Your task to perform on an android device: Open Google Maps and go to "Timeline" Image 0: 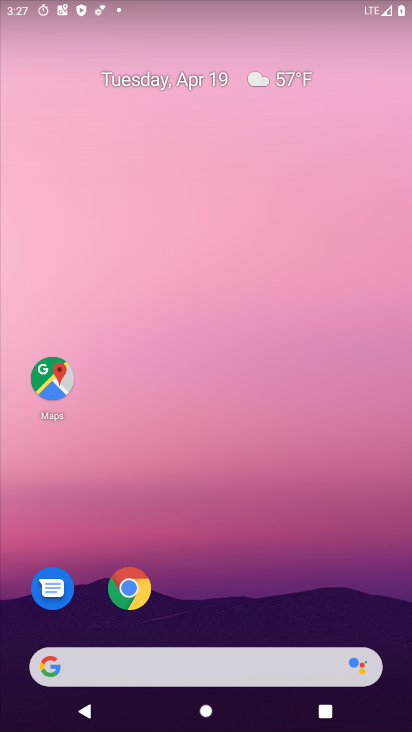
Step 0: click (342, 170)
Your task to perform on an android device: Open Google Maps and go to "Timeline" Image 1: 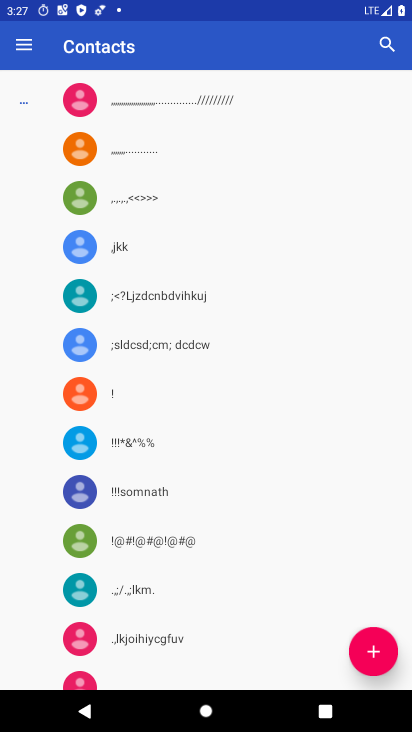
Step 1: drag from (198, 606) to (302, 99)
Your task to perform on an android device: Open Google Maps and go to "Timeline" Image 2: 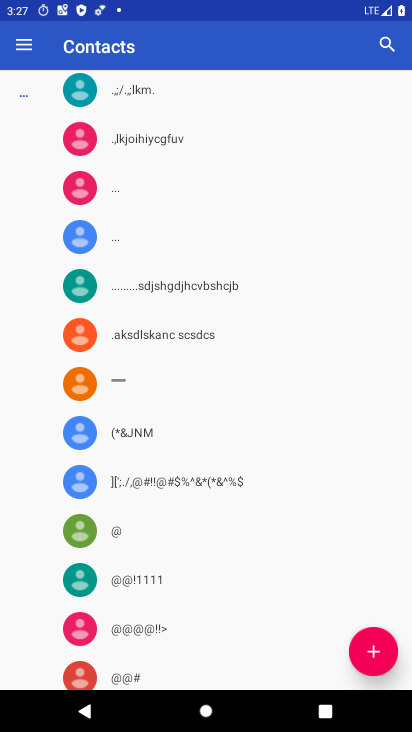
Step 2: press home button
Your task to perform on an android device: Open Google Maps and go to "Timeline" Image 3: 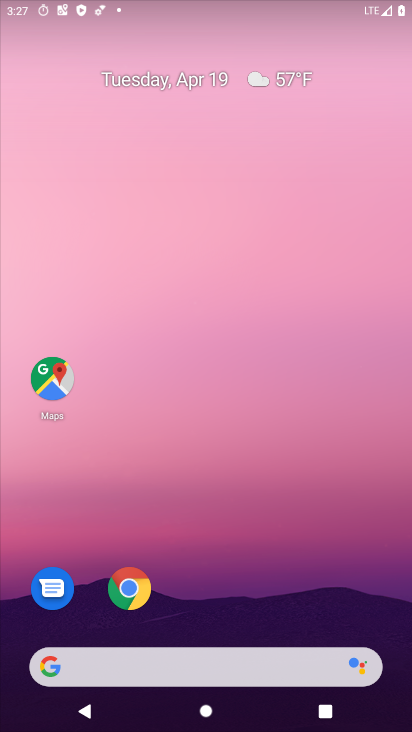
Step 3: drag from (313, 318) to (395, 2)
Your task to perform on an android device: Open Google Maps and go to "Timeline" Image 4: 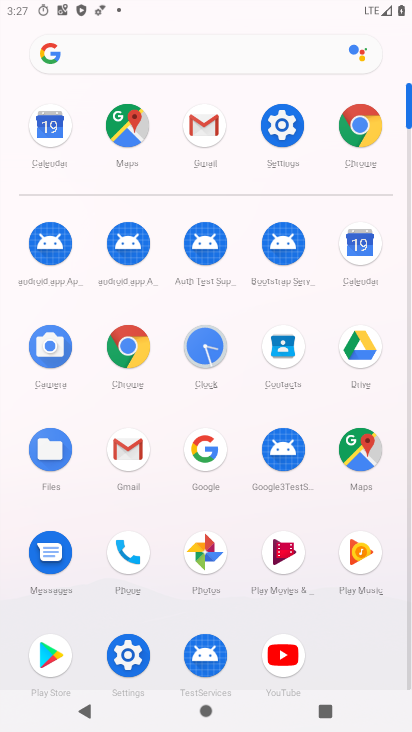
Step 4: click (376, 449)
Your task to perform on an android device: Open Google Maps and go to "Timeline" Image 5: 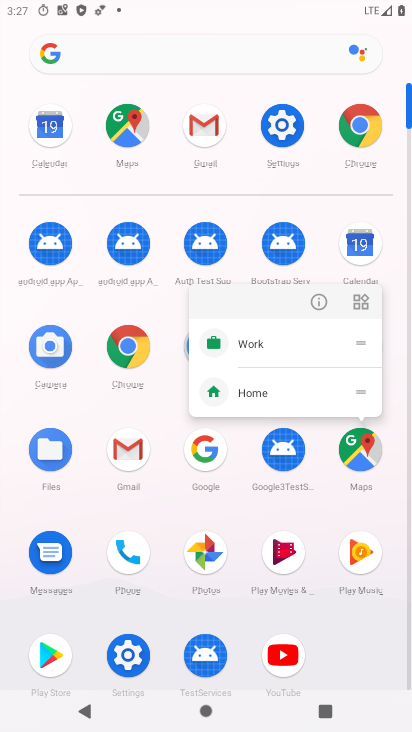
Step 5: click (322, 309)
Your task to perform on an android device: Open Google Maps and go to "Timeline" Image 6: 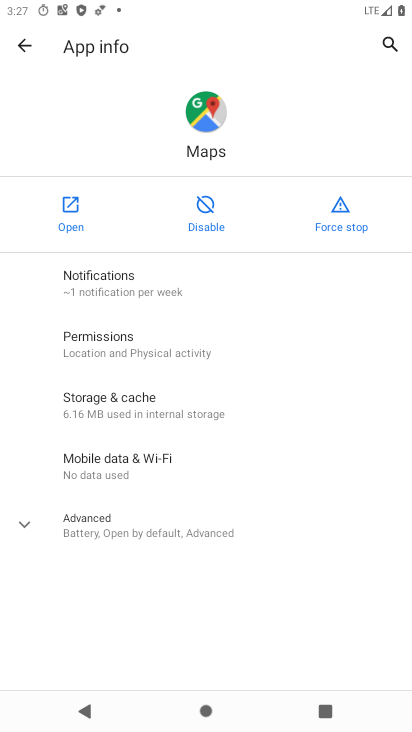
Step 6: click (66, 207)
Your task to perform on an android device: Open Google Maps and go to "Timeline" Image 7: 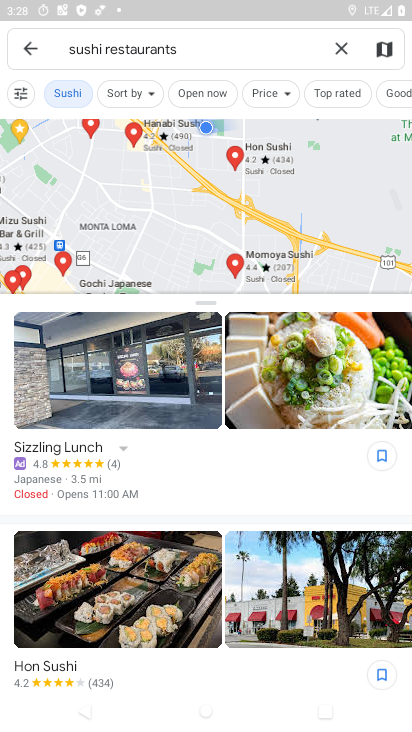
Step 7: click (27, 53)
Your task to perform on an android device: Open Google Maps and go to "Timeline" Image 8: 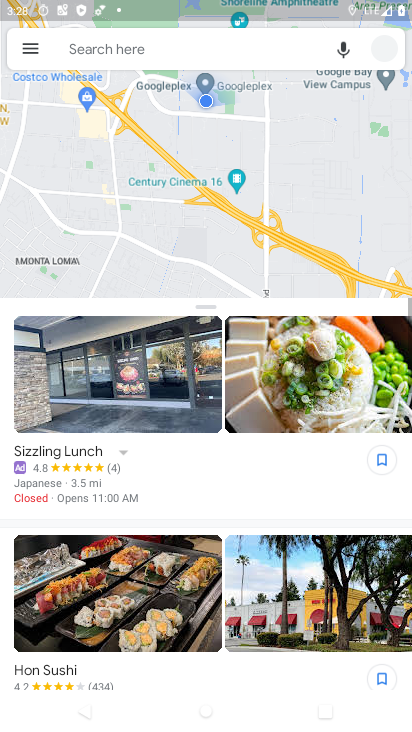
Step 8: click (27, 53)
Your task to perform on an android device: Open Google Maps and go to "Timeline" Image 9: 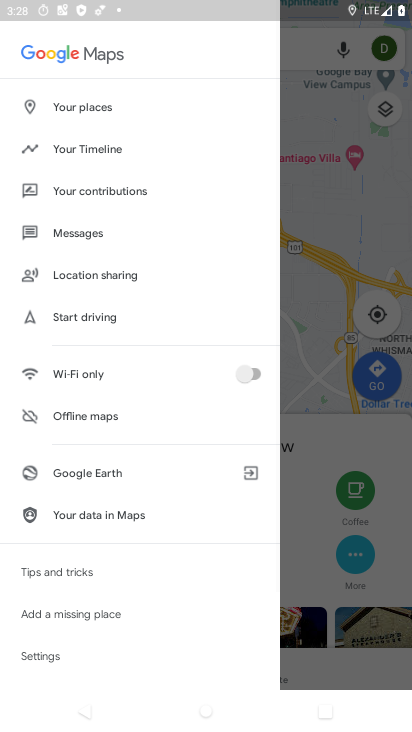
Step 9: click (111, 144)
Your task to perform on an android device: Open Google Maps and go to "Timeline" Image 10: 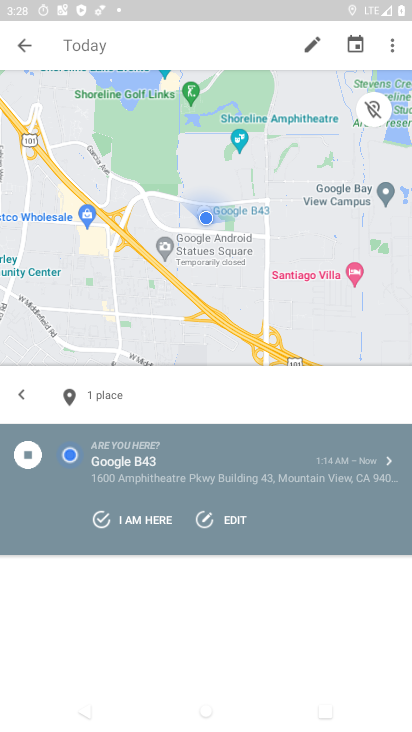
Step 10: task complete